Your task to perform on an android device: Open the calendar app, open the side menu, and click the "Day" option Image 0: 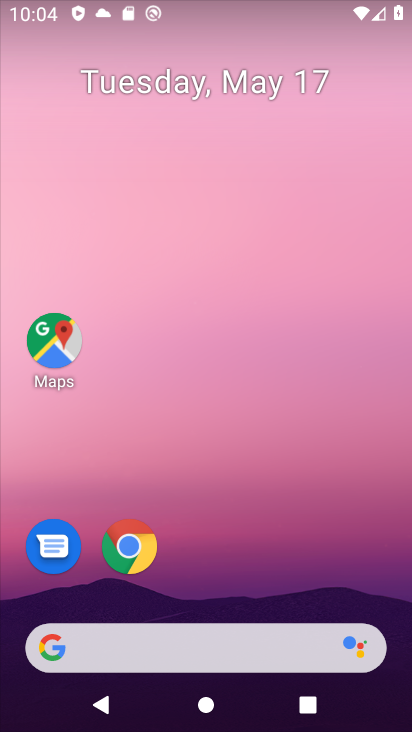
Step 0: drag from (192, 568) to (204, 231)
Your task to perform on an android device: Open the calendar app, open the side menu, and click the "Day" option Image 1: 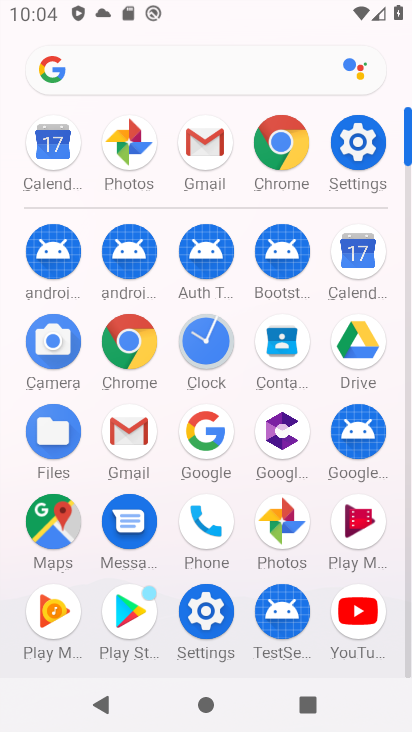
Step 1: click (368, 253)
Your task to perform on an android device: Open the calendar app, open the side menu, and click the "Day" option Image 2: 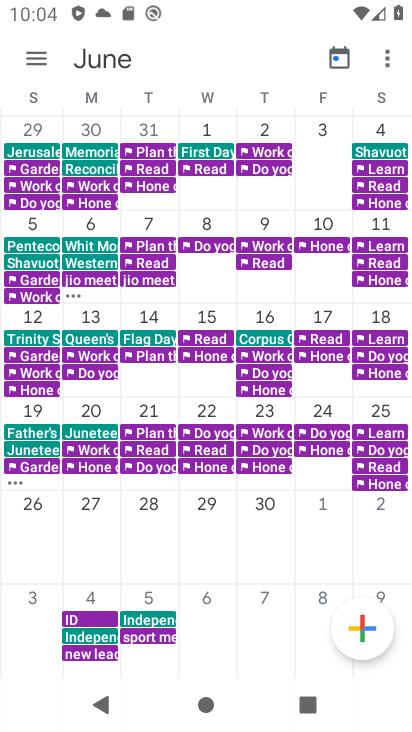
Step 2: click (36, 56)
Your task to perform on an android device: Open the calendar app, open the side menu, and click the "Day" option Image 3: 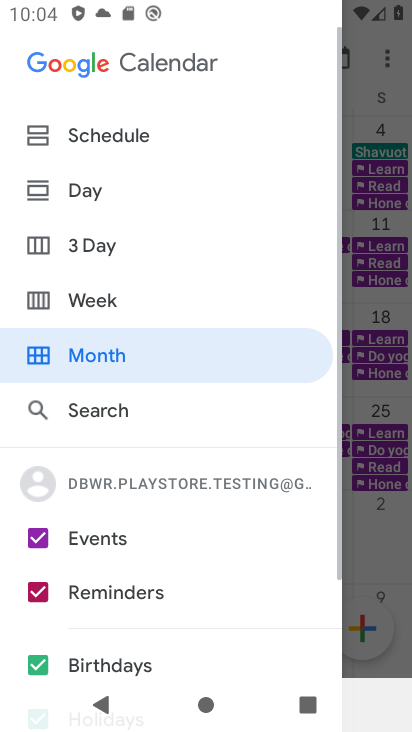
Step 3: click (100, 193)
Your task to perform on an android device: Open the calendar app, open the side menu, and click the "Day" option Image 4: 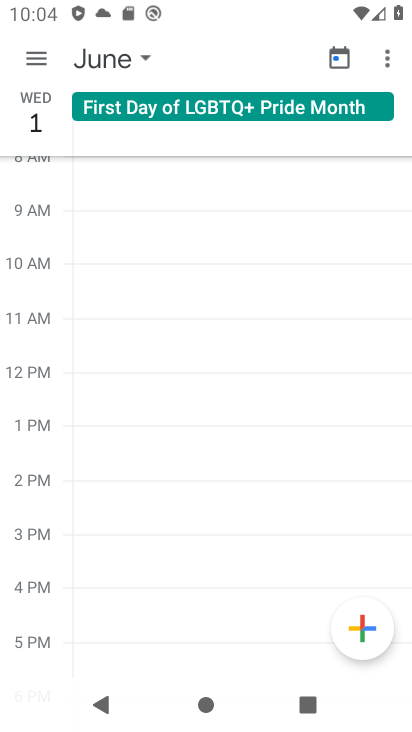
Step 4: task complete